Your task to perform on an android device: clear all cookies in the chrome app Image 0: 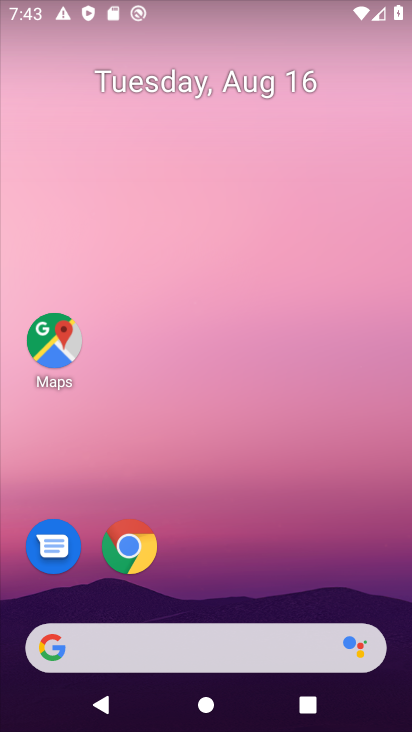
Step 0: click (130, 544)
Your task to perform on an android device: clear all cookies in the chrome app Image 1: 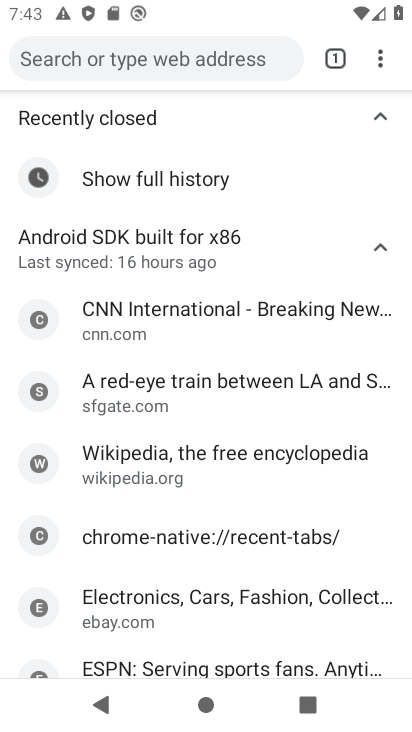
Step 1: press back button
Your task to perform on an android device: clear all cookies in the chrome app Image 2: 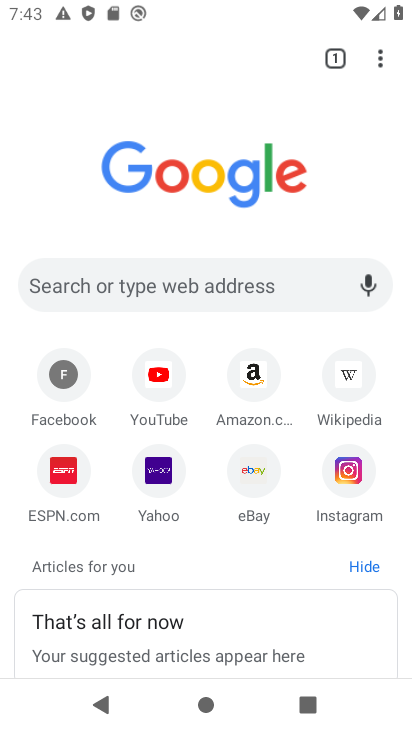
Step 2: click (380, 66)
Your task to perform on an android device: clear all cookies in the chrome app Image 3: 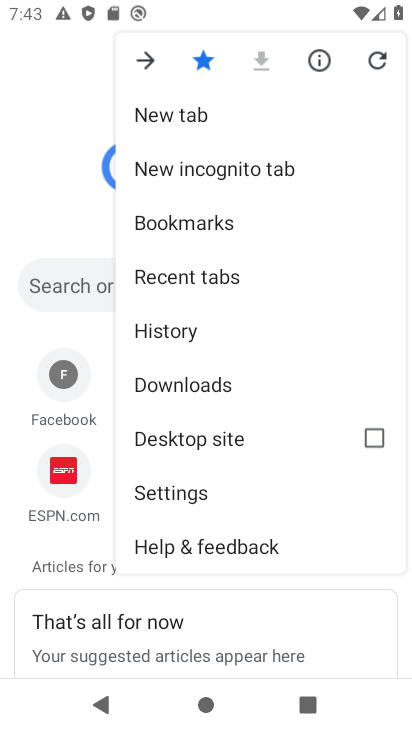
Step 3: click (196, 491)
Your task to perform on an android device: clear all cookies in the chrome app Image 4: 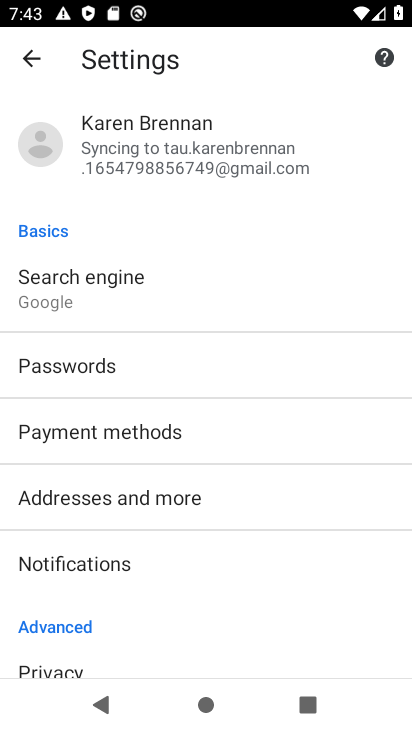
Step 4: drag from (214, 553) to (234, 341)
Your task to perform on an android device: clear all cookies in the chrome app Image 5: 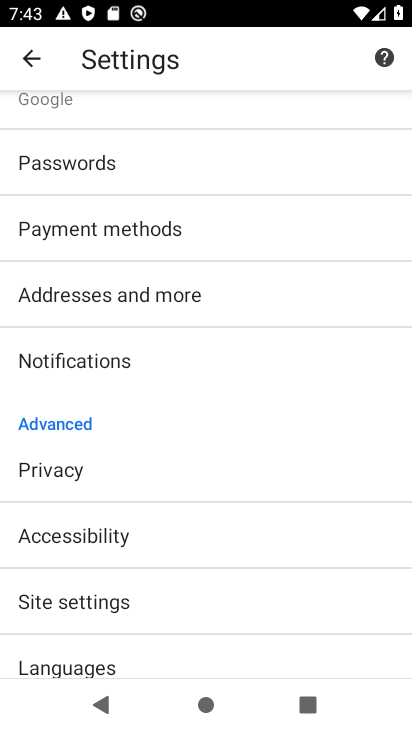
Step 5: click (171, 485)
Your task to perform on an android device: clear all cookies in the chrome app Image 6: 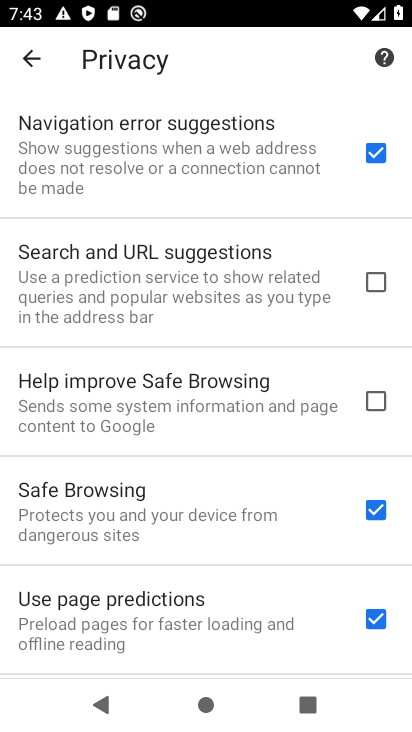
Step 6: drag from (185, 550) to (187, 162)
Your task to perform on an android device: clear all cookies in the chrome app Image 7: 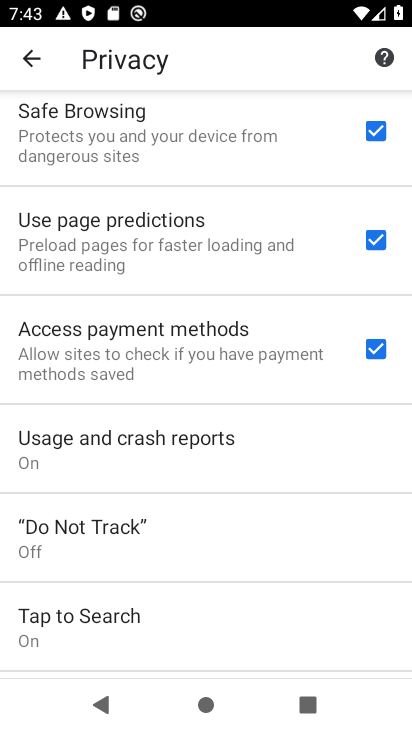
Step 7: drag from (168, 532) to (171, 221)
Your task to perform on an android device: clear all cookies in the chrome app Image 8: 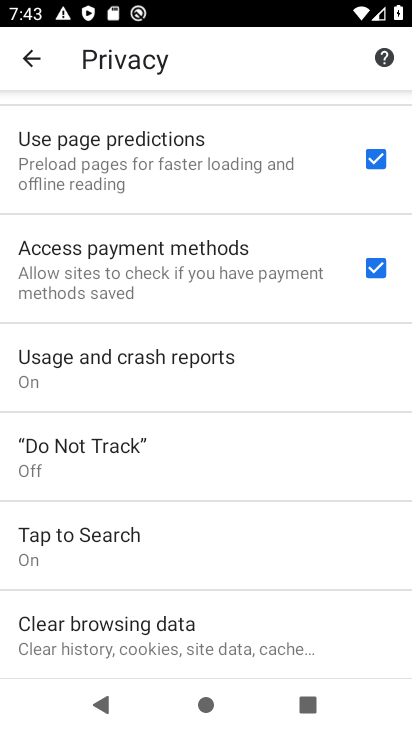
Step 8: click (177, 631)
Your task to perform on an android device: clear all cookies in the chrome app Image 9: 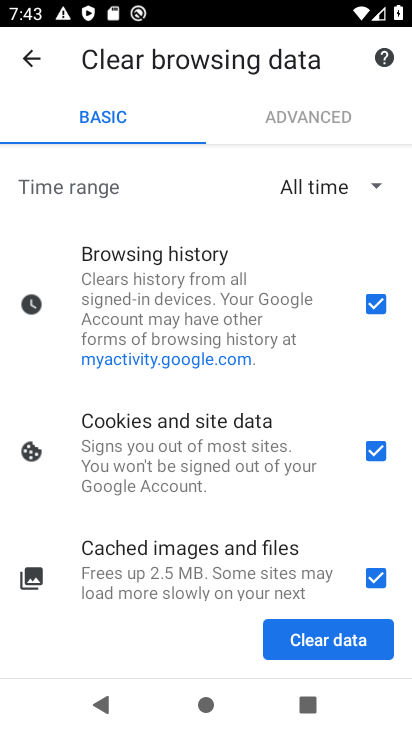
Step 9: click (379, 574)
Your task to perform on an android device: clear all cookies in the chrome app Image 10: 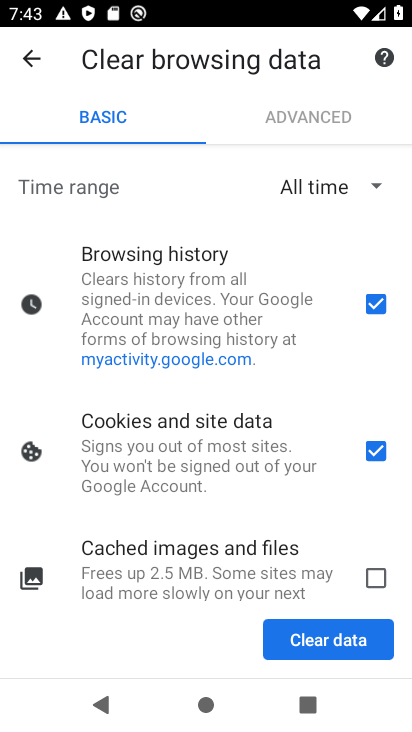
Step 10: click (375, 303)
Your task to perform on an android device: clear all cookies in the chrome app Image 11: 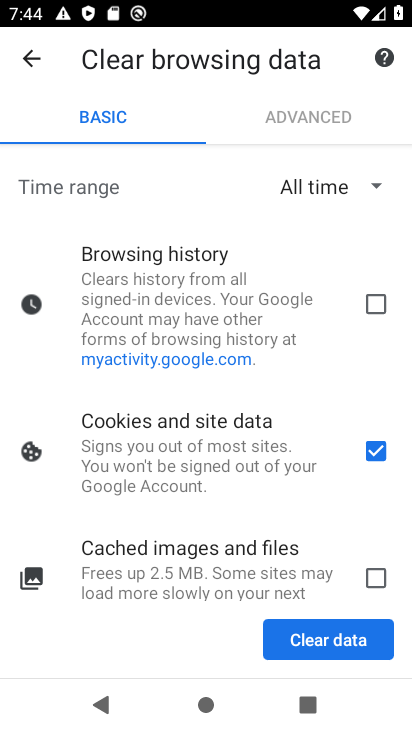
Step 11: click (322, 632)
Your task to perform on an android device: clear all cookies in the chrome app Image 12: 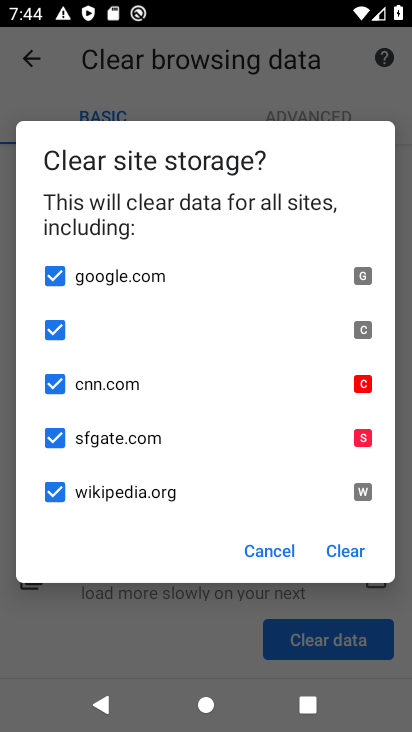
Step 12: click (348, 544)
Your task to perform on an android device: clear all cookies in the chrome app Image 13: 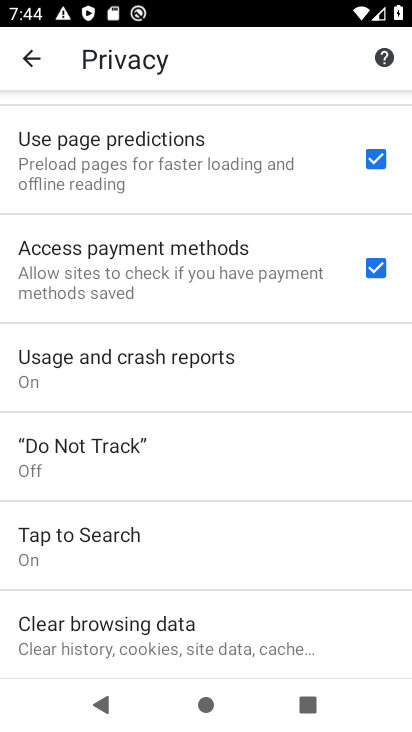
Step 13: task complete